Your task to perform on an android device: Open Google Maps Image 0: 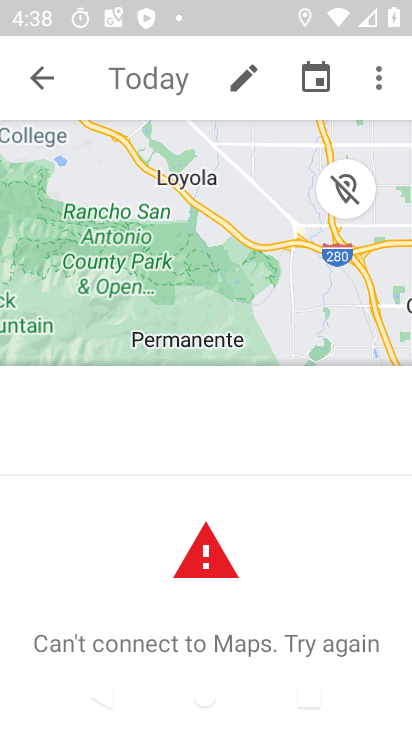
Step 0: press home button
Your task to perform on an android device: Open Google Maps Image 1: 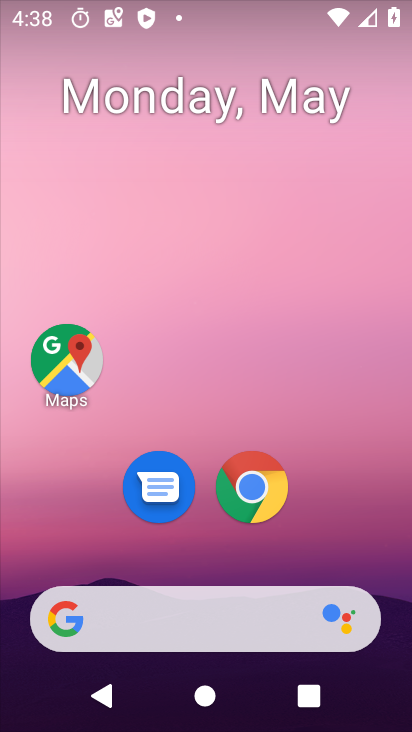
Step 1: drag from (195, 582) to (207, 209)
Your task to perform on an android device: Open Google Maps Image 2: 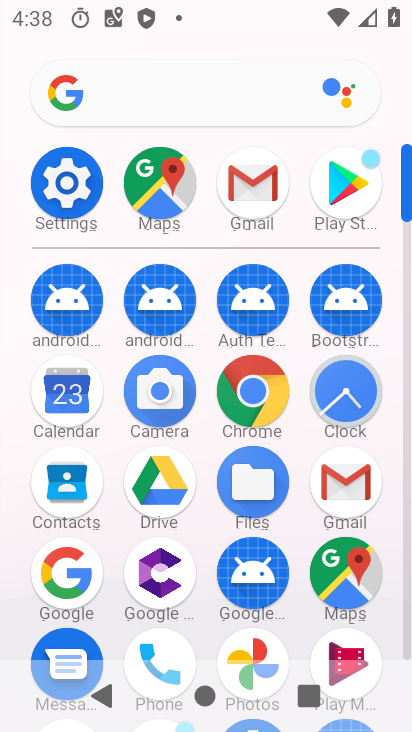
Step 2: click (348, 579)
Your task to perform on an android device: Open Google Maps Image 3: 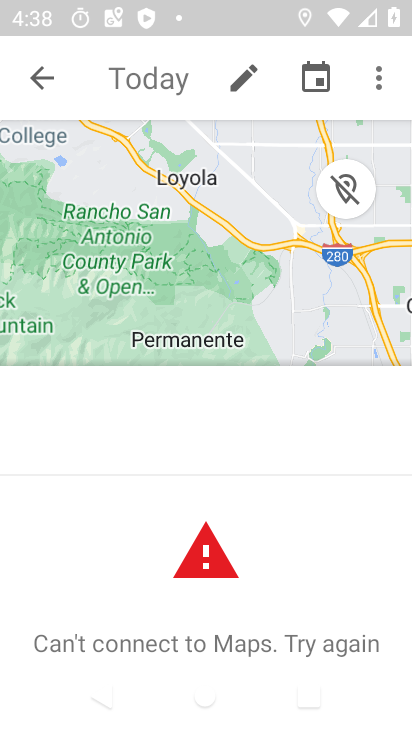
Step 3: click (41, 80)
Your task to perform on an android device: Open Google Maps Image 4: 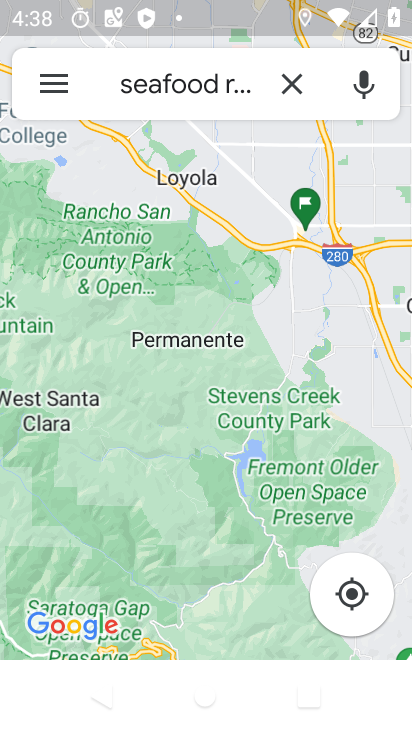
Step 4: click (279, 86)
Your task to perform on an android device: Open Google Maps Image 5: 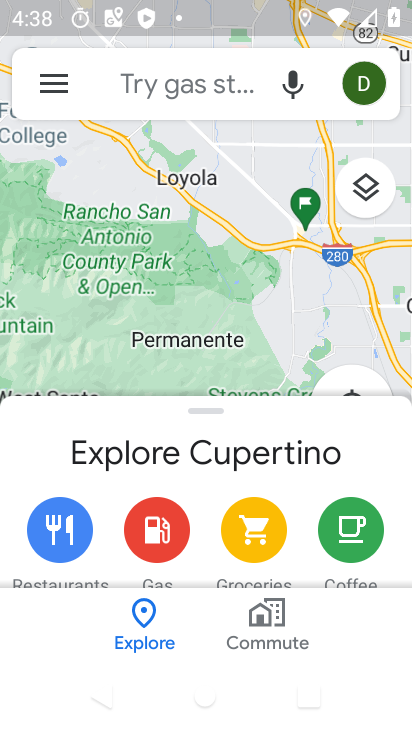
Step 5: task complete